Your task to perform on an android device: Open the calendar app, open the side menu, and click the "Day" option Image 0: 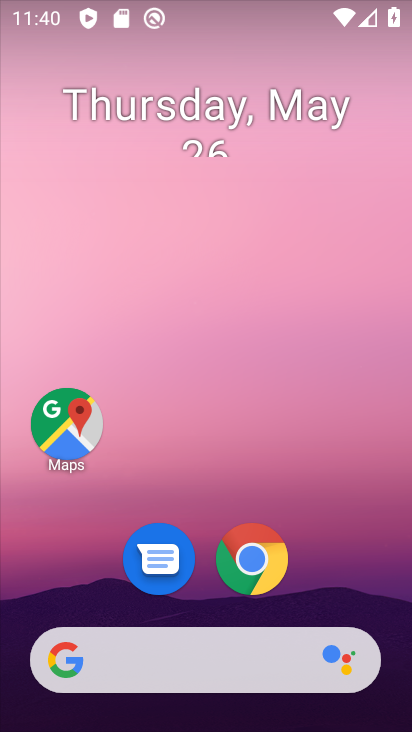
Step 0: drag from (338, 576) to (277, 108)
Your task to perform on an android device: Open the calendar app, open the side menu, and click the "Day" option Image 1: 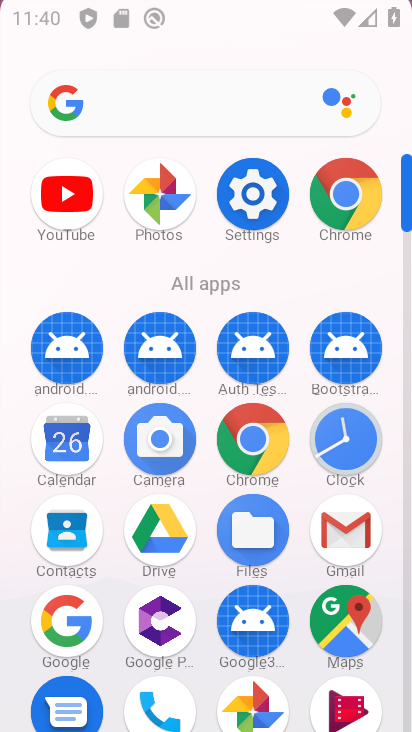
Step 1: click (277, 108)
Your task to perform on an android device: Open the calendar app, open the side menu, and click the "Day" option Image 2: 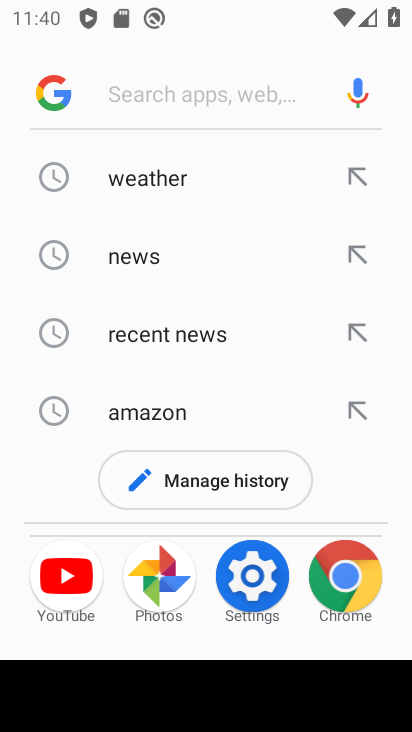
Step 2: click (244, 453)
Your task to perform on an android device: Open the calendar app, open the side menu, and click the "Day" option Image 3: 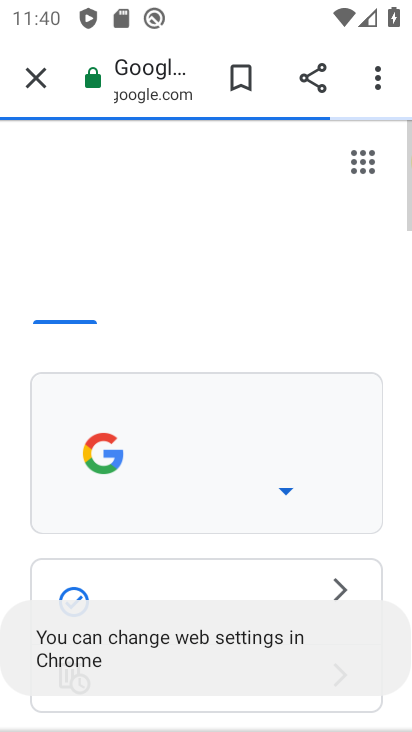
Step 3: press home button
Your task to perform on an android device: Open the calendar app, open the side menu, and click the "Day" option Image 4: 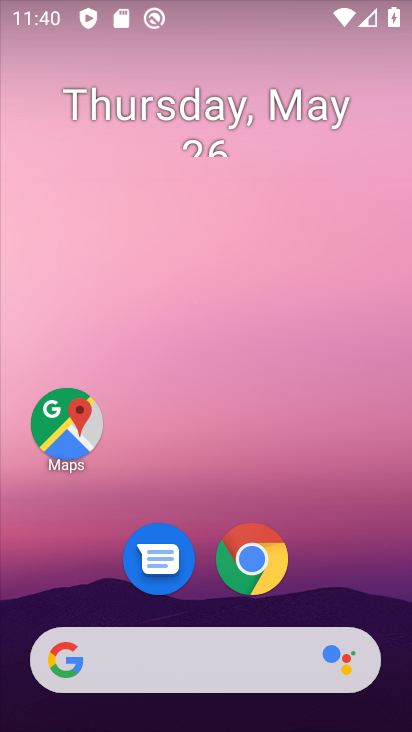
Step 4: drag from (349, 580) to (195, 2)
Your task to perform on an android device: Open the calendar app, open the side menu, and click the "Day" option Image 5: 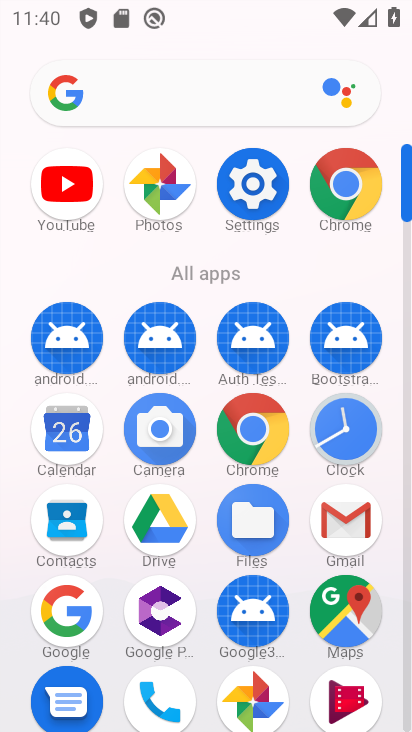
Step 5: click (57, 413)
Your task to perform on an android device: Open the calendar app, open the side menu, and click the "Day" option Image 6: 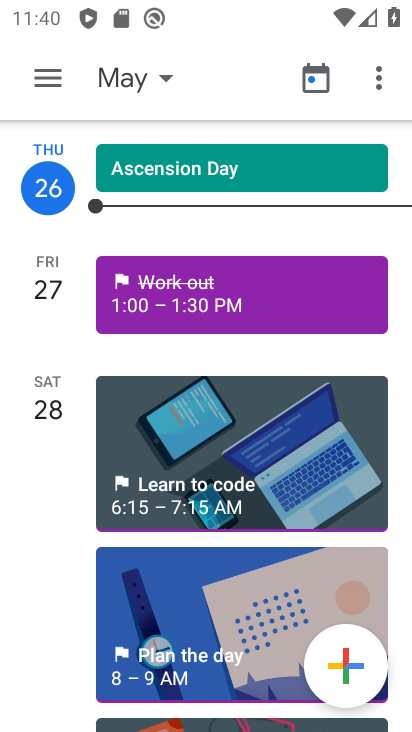
Step 6: click (48, 67)
Your task to perform on an android device: Open the calendar app, open the side menu, and click the "Day" option Image 7: 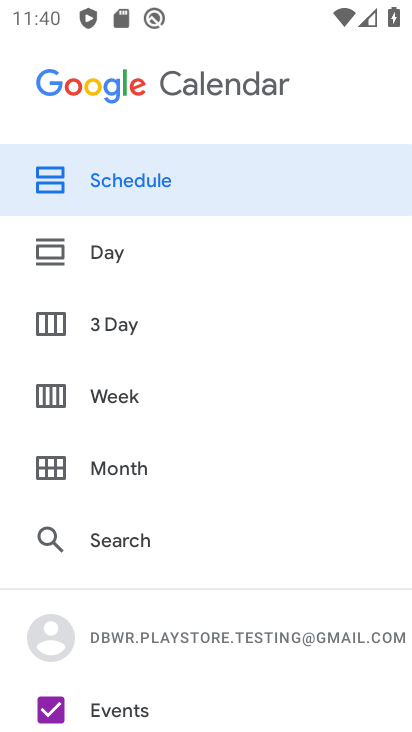
Step 7: click (103, 249)
Your task to perform on an android device: Open the calendar app, open the side menu, and click the "Day" option Image 8: 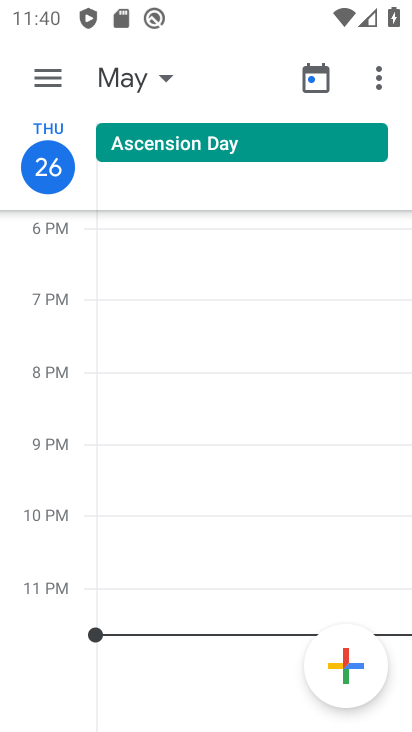
Step 8: task complete